Your task to perform on an android device: Open CNN.com Image 0: 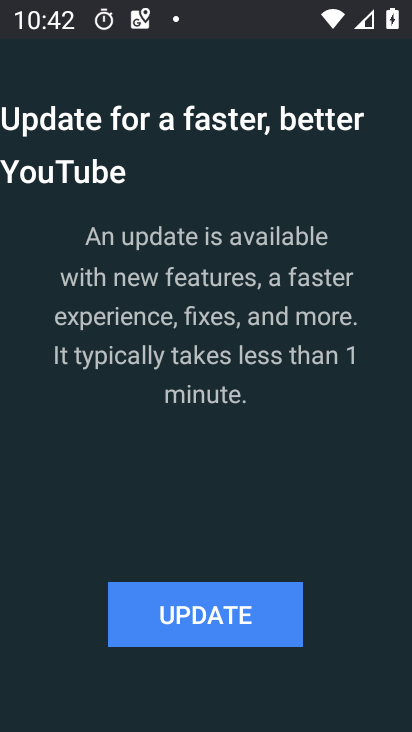
Step 0: press home button
Your task to perform on an android device: Open CNN.com Image 1: 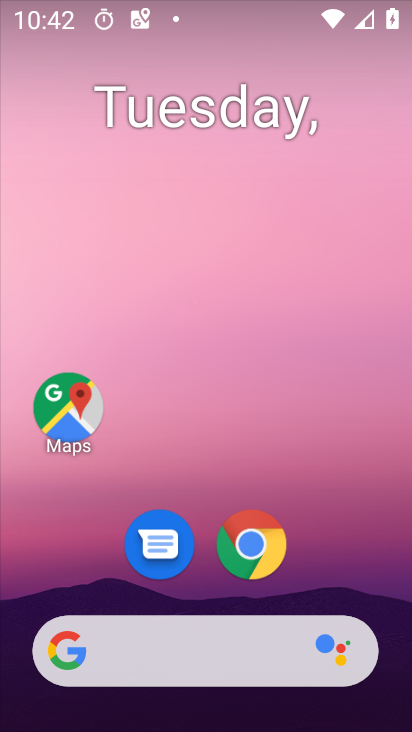
Step 1: click (253, 550)
Your task to perform on an android device: Open CNN.com Image 2: 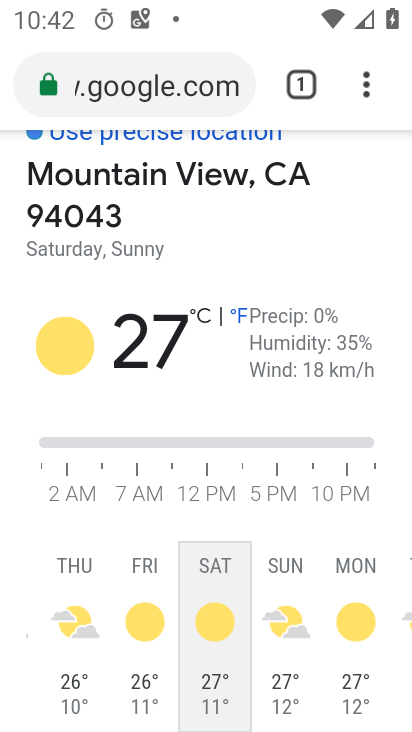
Step 2: click (199, 80)
Your task to perform on an android device: Open CNN.com Image 3: 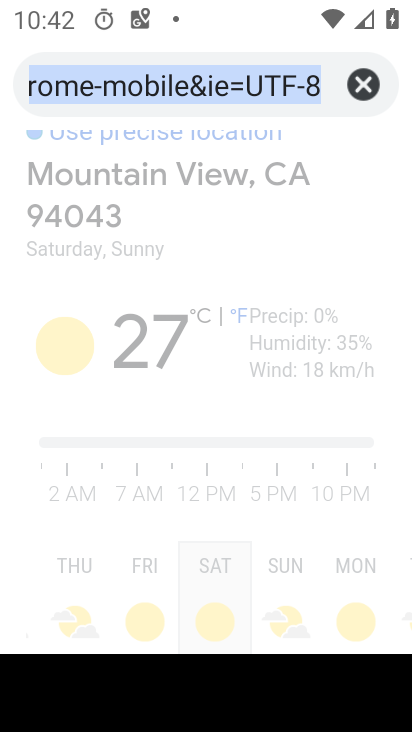
Step 3: type "cnn.com"
Your task to perform on an android device: Open CNN.com Image 4: 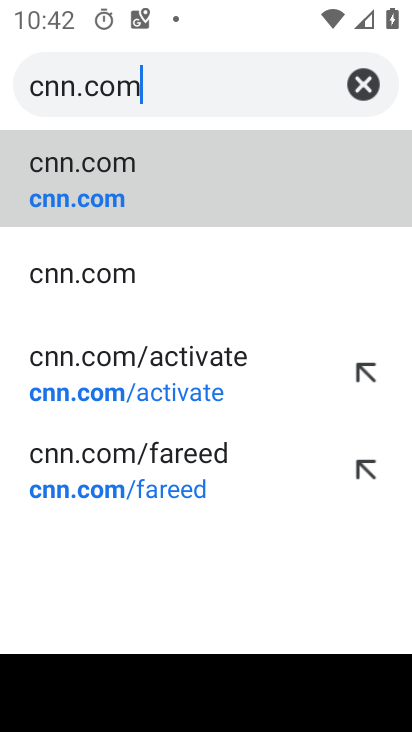
Step 4: click (98, 195)
Your task to perform on an android device: Open CNN.com Image 5: 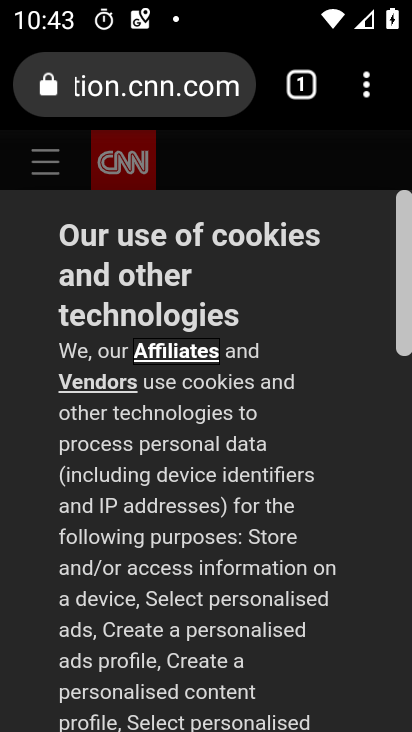
Step 5: task complete